Your task to perform on an android device: add a label to a message in the gmail app Image 0: 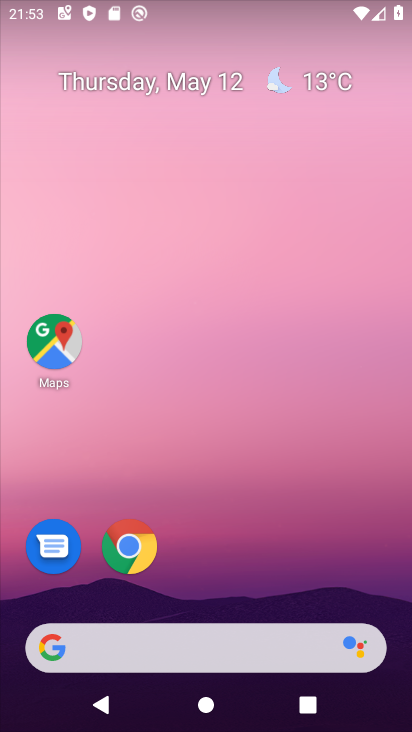
Step 0: drag from (299, 562) to (280, 68)
Your task to perform on an android device: add a label to a message in the gmail app Image 1: 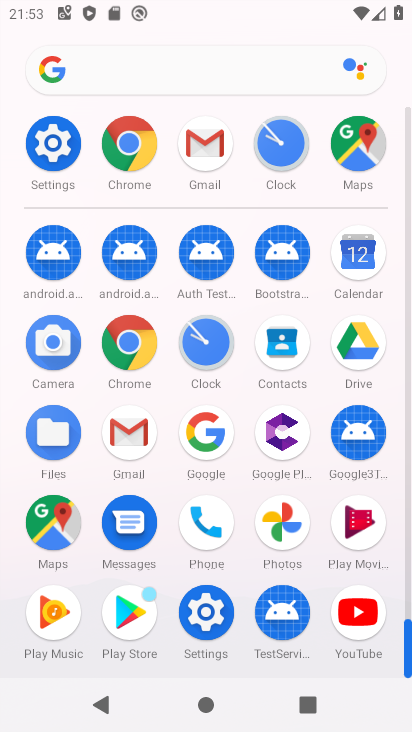
Step 1: click (134, 442)
Your task to perform on an android device: add a label to a message in the gmail app Image 2: 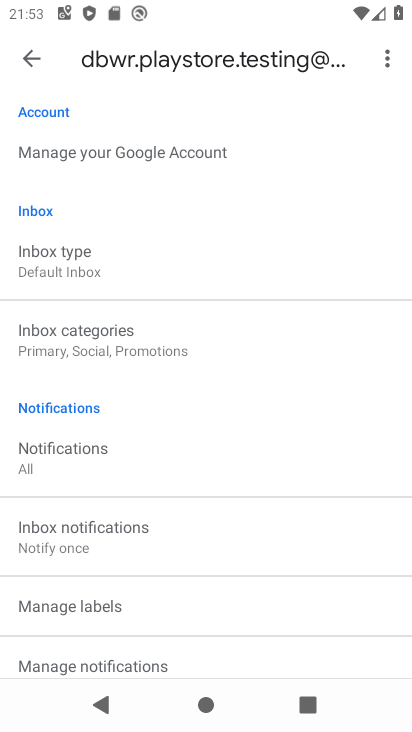
Step 2: click (26, 61)
Your task to perform on an android device: add a label to a message in the gmail app Image 3: 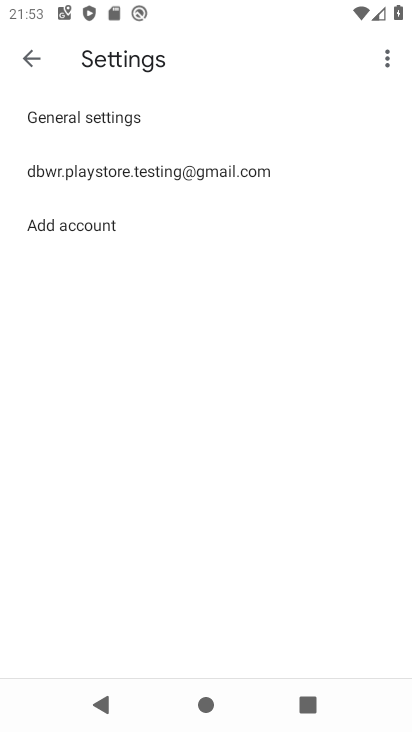
Step 3: click (38, 59)
Your task to perform on an android device: add a label to a message in the gmail app Image 4: 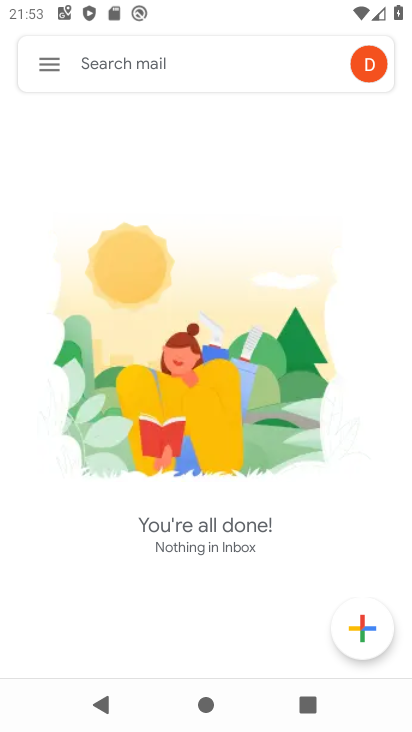
Step 4: task complete